Your task to perform on an android device: see sites visited before in the chrome app Image 0: 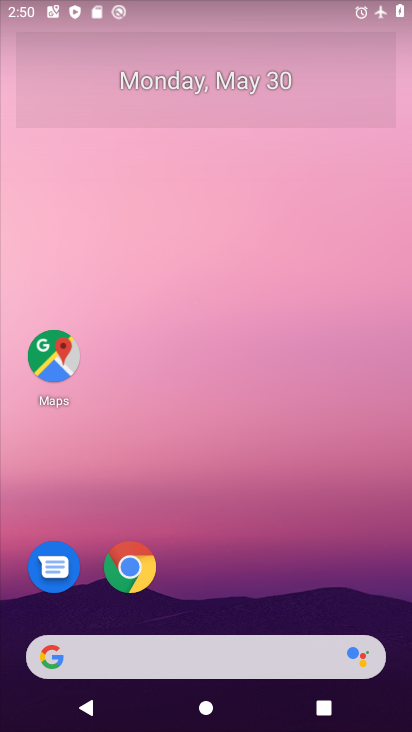
Step 0: click (130, 579)
Your task to perform on an android device: see sites visited before in the chrome app Image 1: 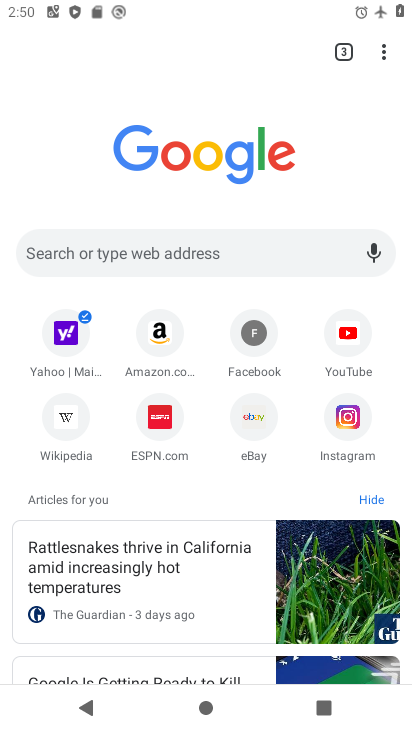
Step 1: click (382, 48)
Your task to perform on an android device: see sites visited before in the chrome app Image 2: 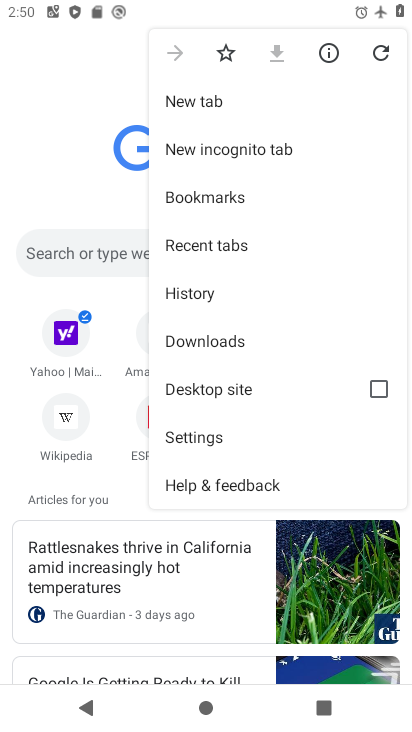
Step 2: click (195, 284)
Your task to perform on an android device: see sites visited before in the chrome app Image 3: 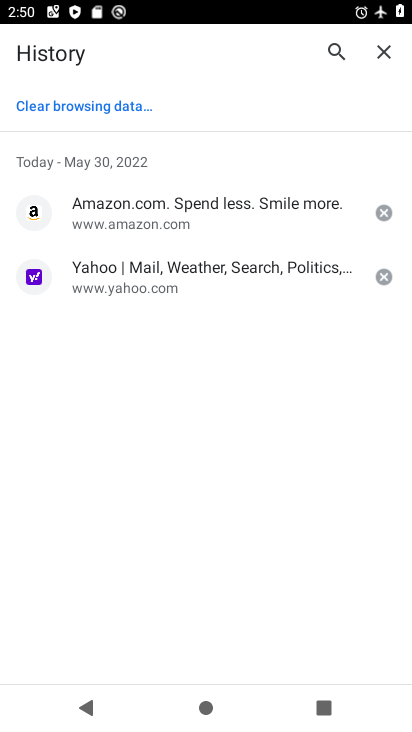
Step 3: task complete